Your task to perform on an android device: Open Chrome and go to settings Image 0: 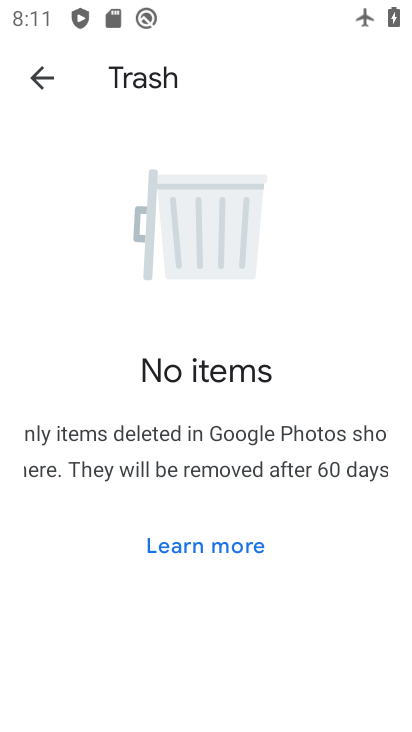
Step 0: press home button
Your task to perform on an android device: Open Chrome and go to settings Image 1: 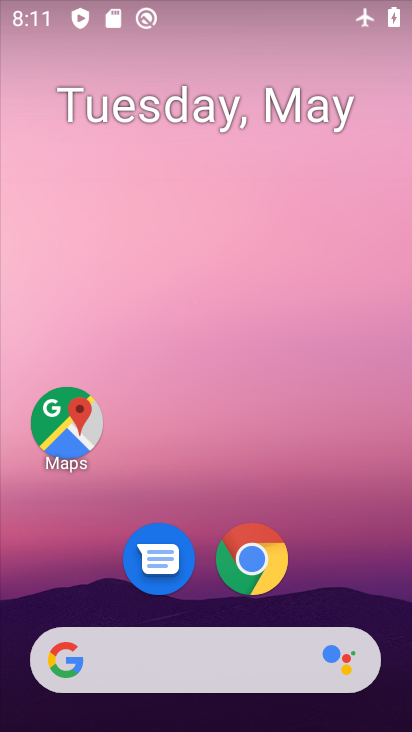
Step 1: click (241, 538)
Your task to perform on an android device: Open Chrome and go to settings Image 2: 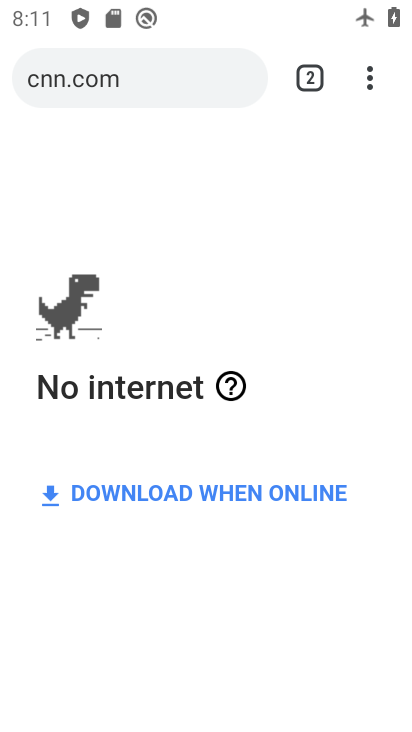
Step 2: task complete